Your task to perform on an android device: Go to calendar. Show me events next week Image 0: 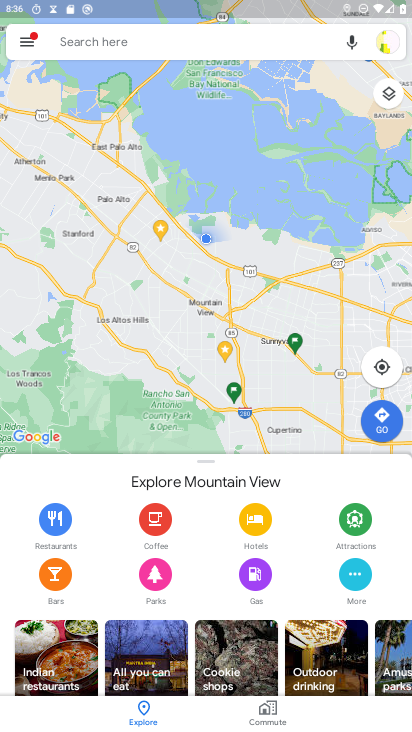
Step 0: press home button
Your task to perform on an android device: Go to calendar. Show me events next week Image 1: 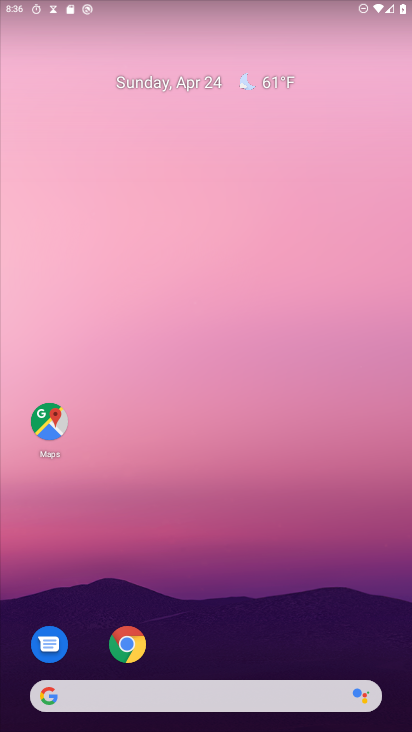
Step 1: drag from (181, 693) to (248, 179)
Your task to perform on an android device: Go to calendar. Show me events next week Image 2: 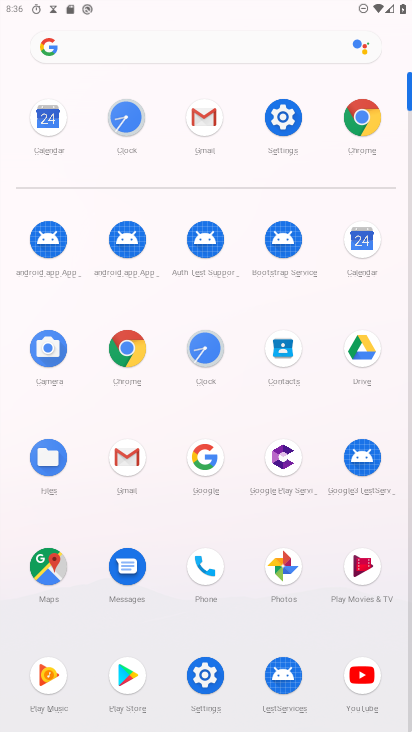
Step 2: click (362, 244)
Your task to perform on an android device: Go to calendar. Show me events next week Image 3: 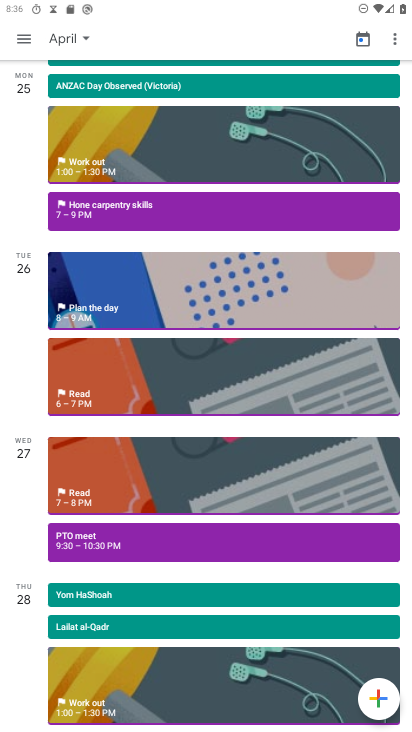
Step 3: click (29, 38)
Your task to perform on an android device: Go to calendar. Show me events next week Image 4: 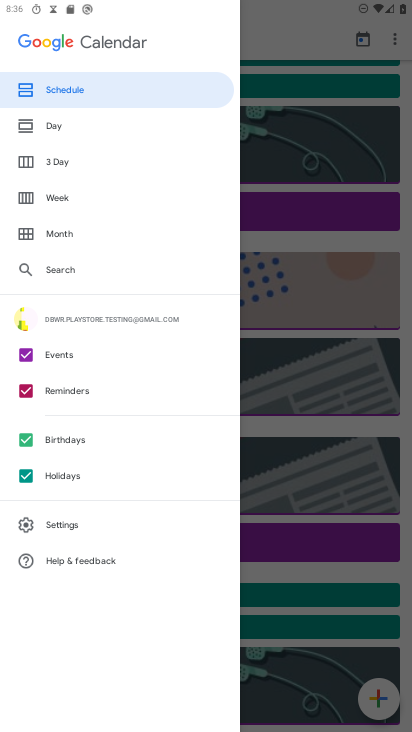
Step 4: click (50, 194)
Your task to perform on an android device: Go to calendar. Show me events next week Image 5: 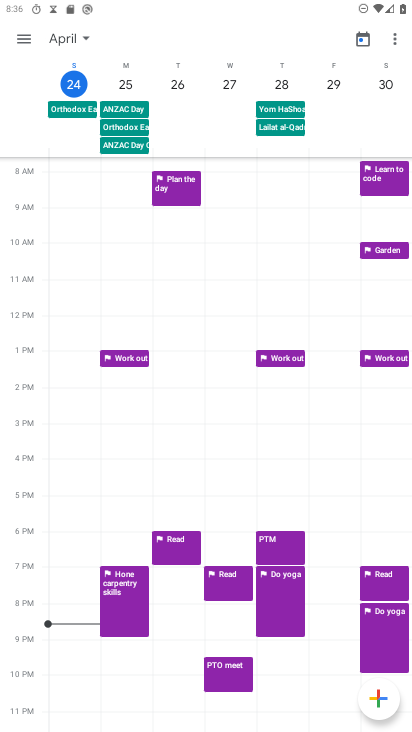
Step 5: task complete